Your task to perform on an android device: View the shopping cart on amazon.com. Search for acer predator on amazon.com, select the first entry, add it to the cart, then select checkout. Image 0: 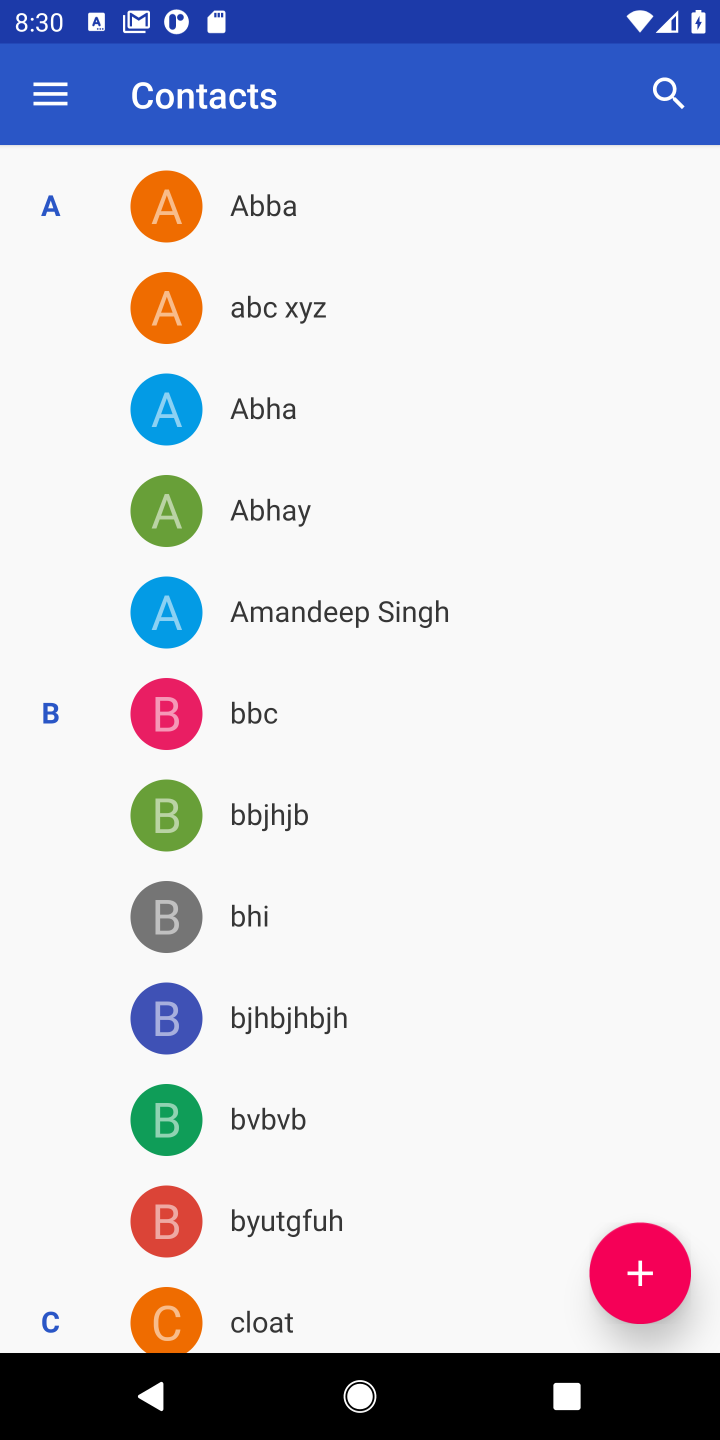
Step 0: press home button
Your task to perform on an android device: View the shopping cart on amazon.com. Search for acer predator on amazon.com, select the first entry, add it to the cart, then select checkout. Image 1: 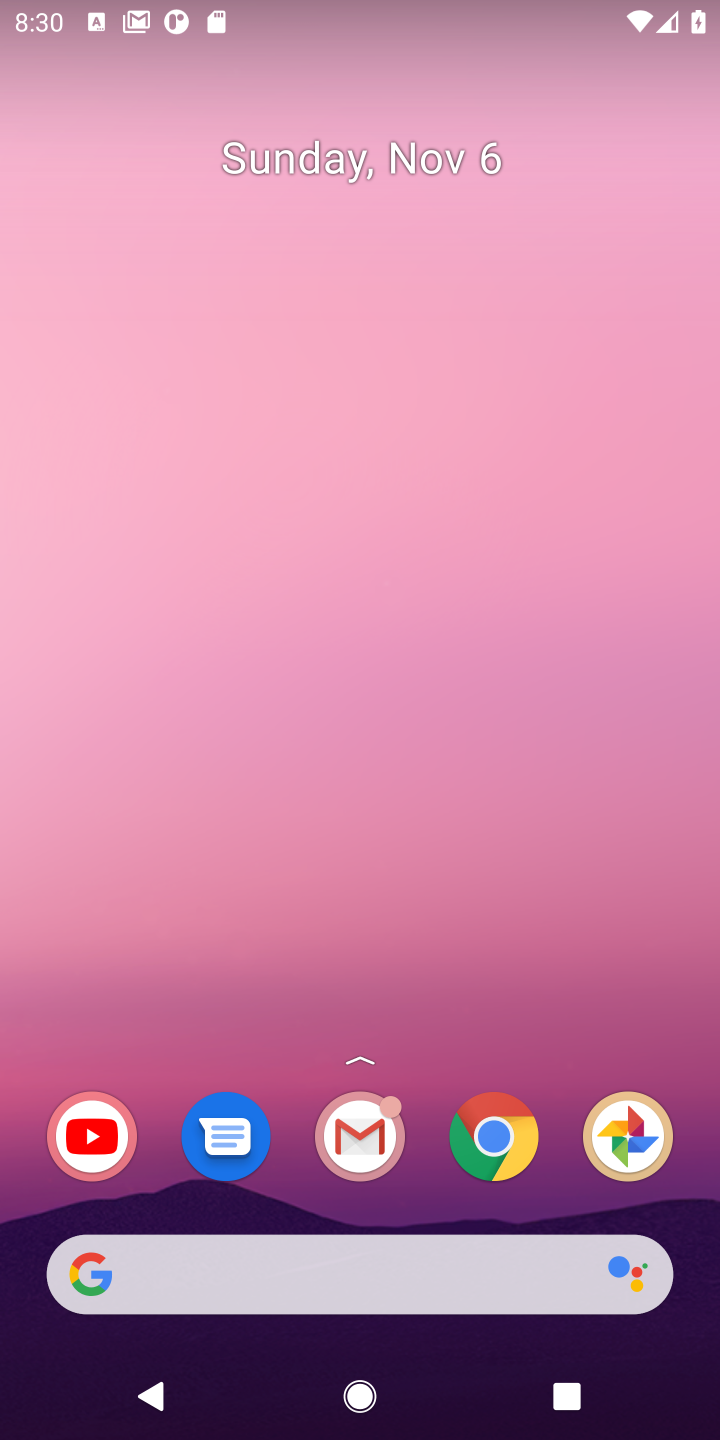
Step 1: click (317, 1284)
Your task to perform on an android device: View the shopping cart on amazon.com. Search for acer predator on amazon.com, select the first entry, add it to the cart, then select checkout. Image 2: 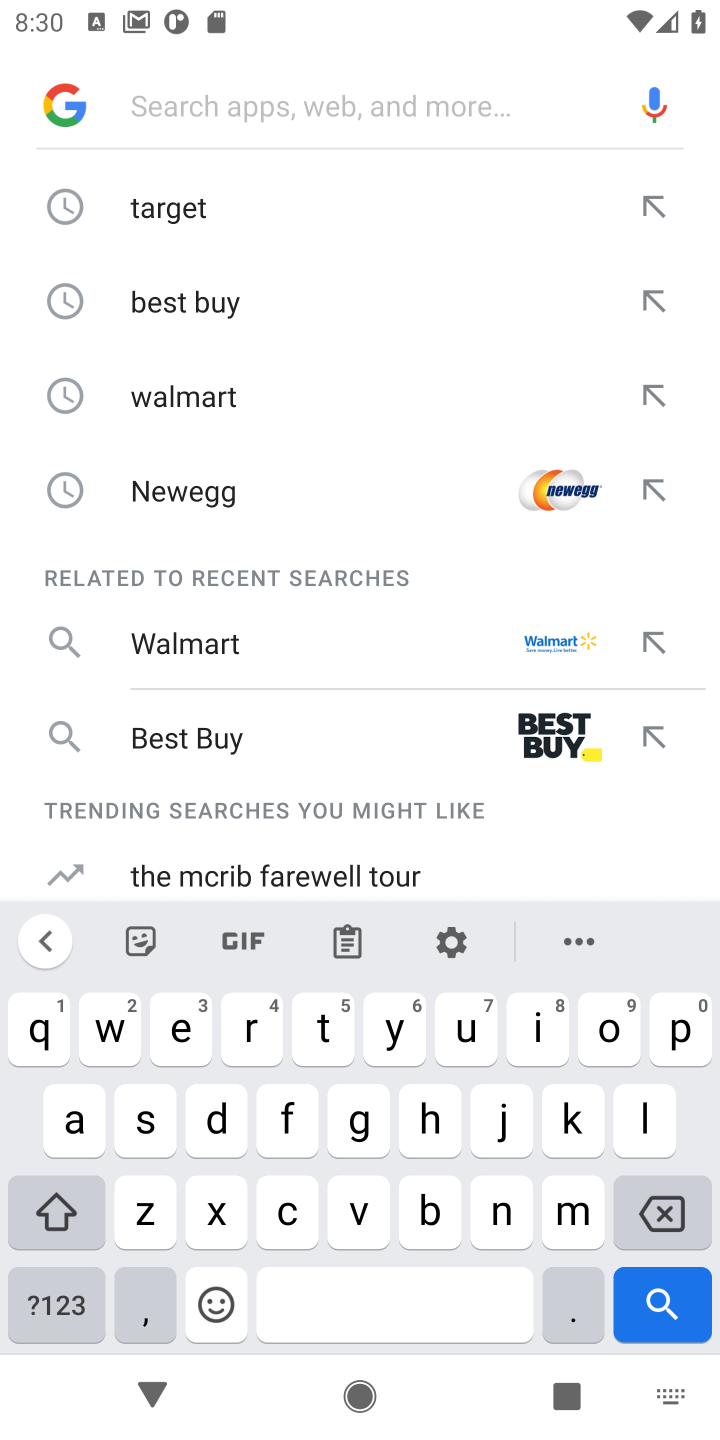
Step 2: type "amazon"
Your task to perform on an android device: View the shopping cart on amazon.com. Search for acer predator on amazon.com, select the first entry, add it to the cart, then select checkout. Image 3: 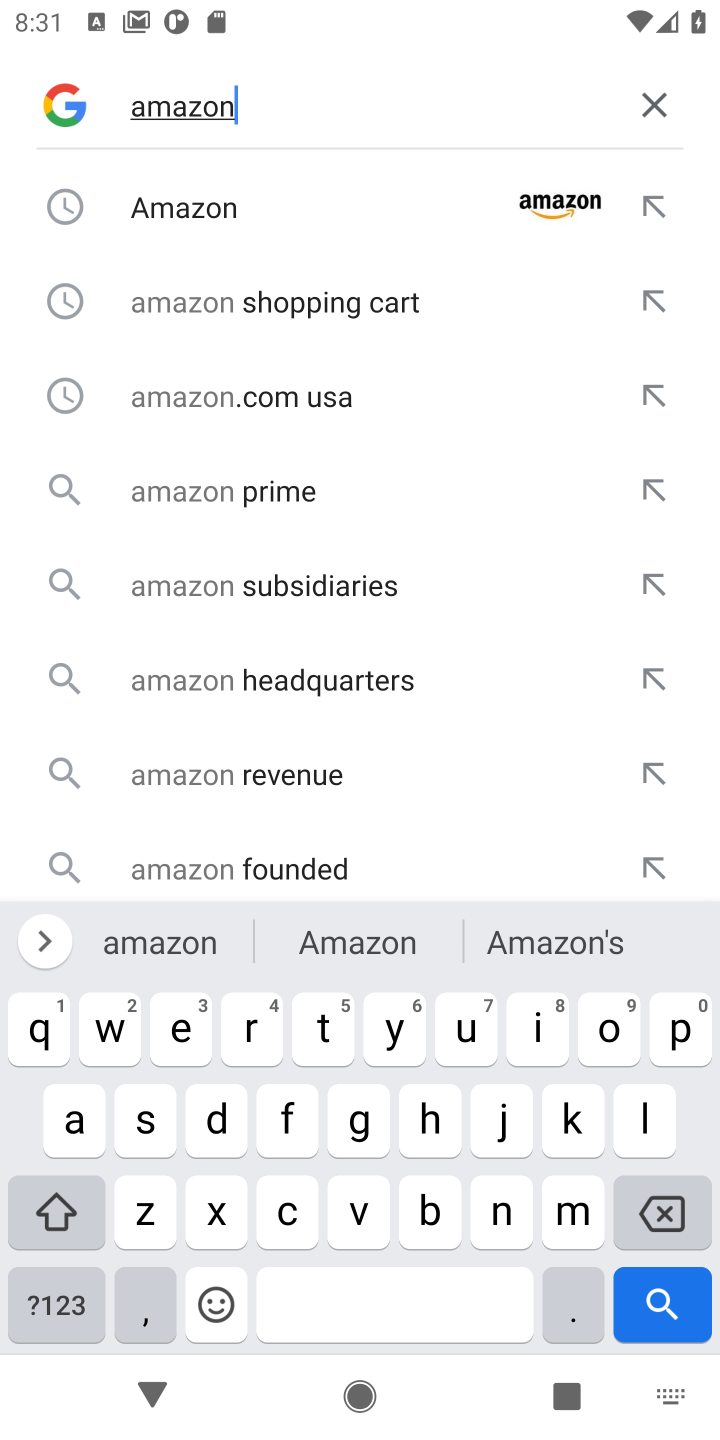
Step 3: click (509, 198)
Your task to perform on an android device: View the shopping cart on amazon.com. Search for acer predator on amazon.com, select the first entry, add it to the cart, then select checkout. Image 4: 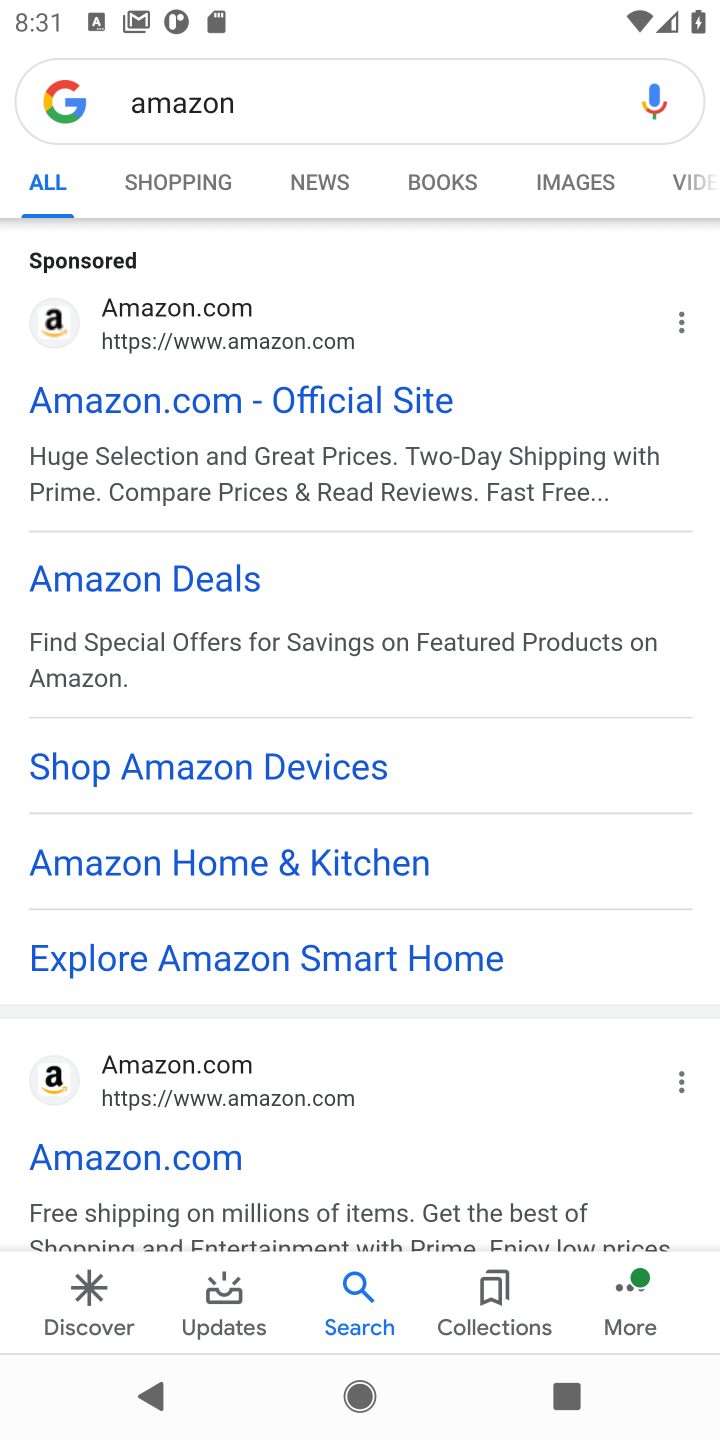
Step 4: click (145, 373)
Your task to perform on an android device: View the shopping cart on amazon.com. Search for acer predator on amazon.com, select the first entry, add it to the cart, then select checkout. Image 5: 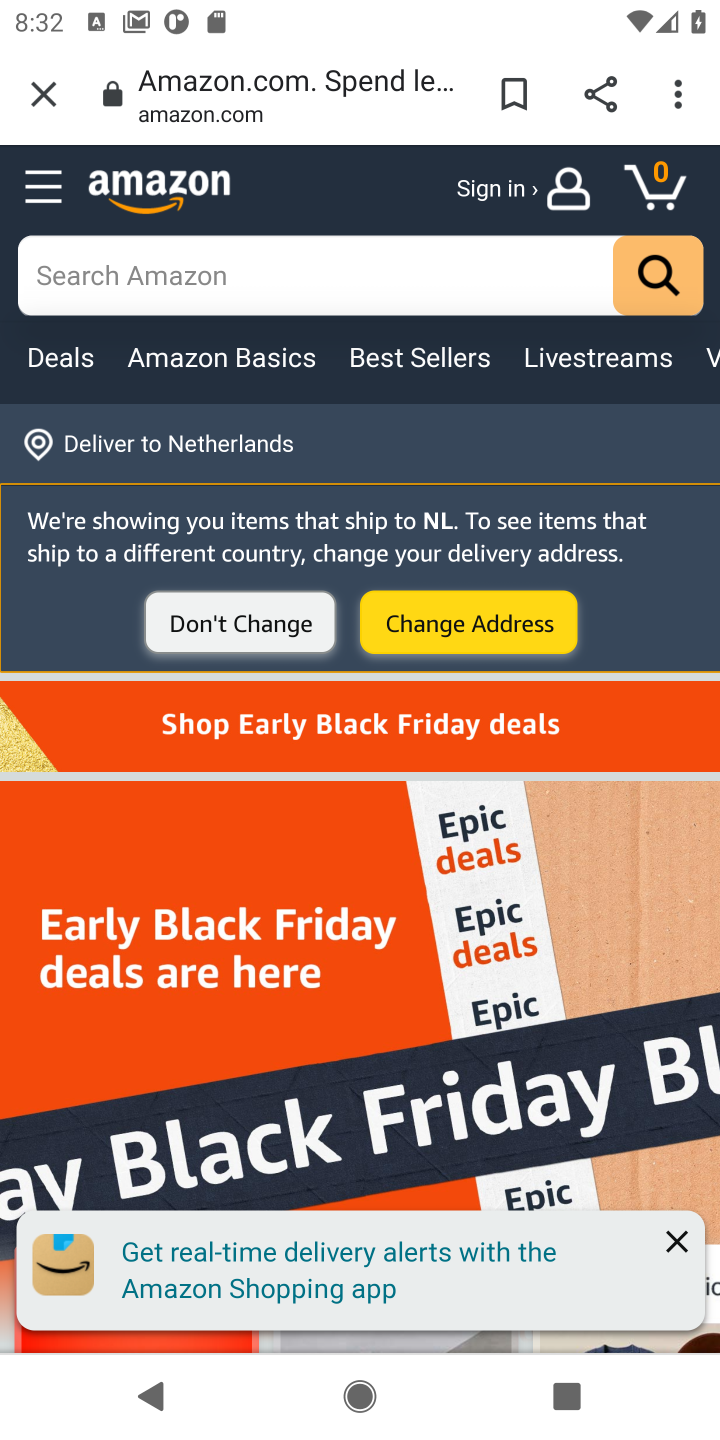
Step 5: task complete